Your task to perform on an android device: Go to Google Image 0: 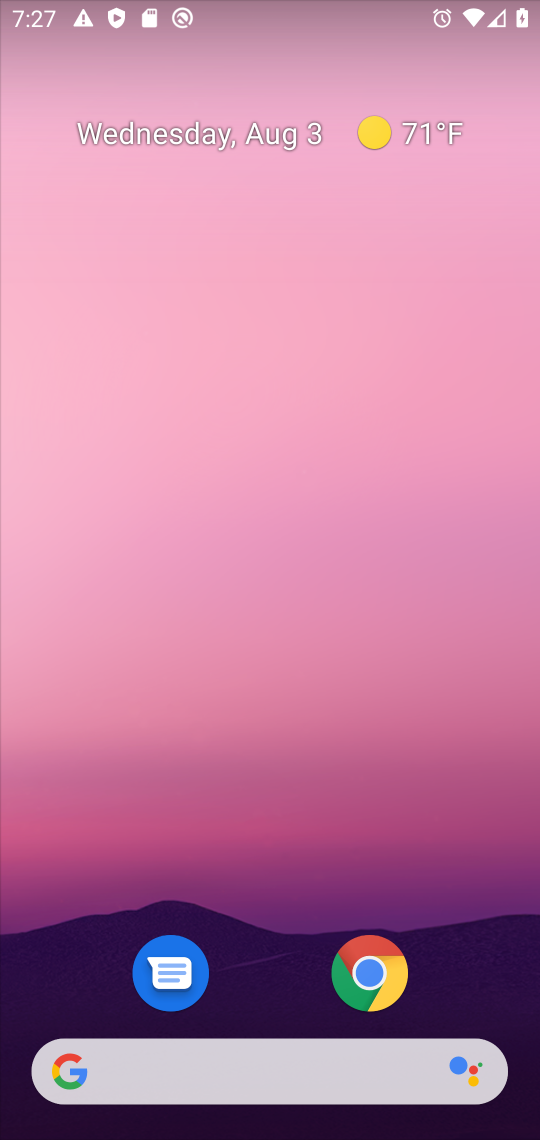
Step 0: drag from (244, 976) to (238, 378)
Your task to perform on an android device: Go to Google Image 1: 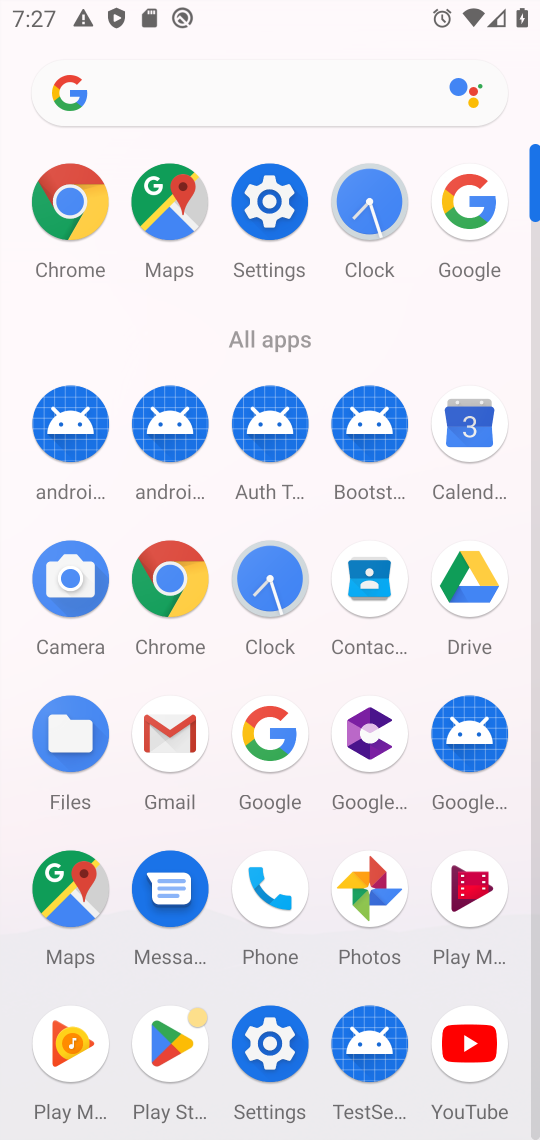
Step 1: click (260, 766)
Your task to perform on an android device: Go to Google Image 2: 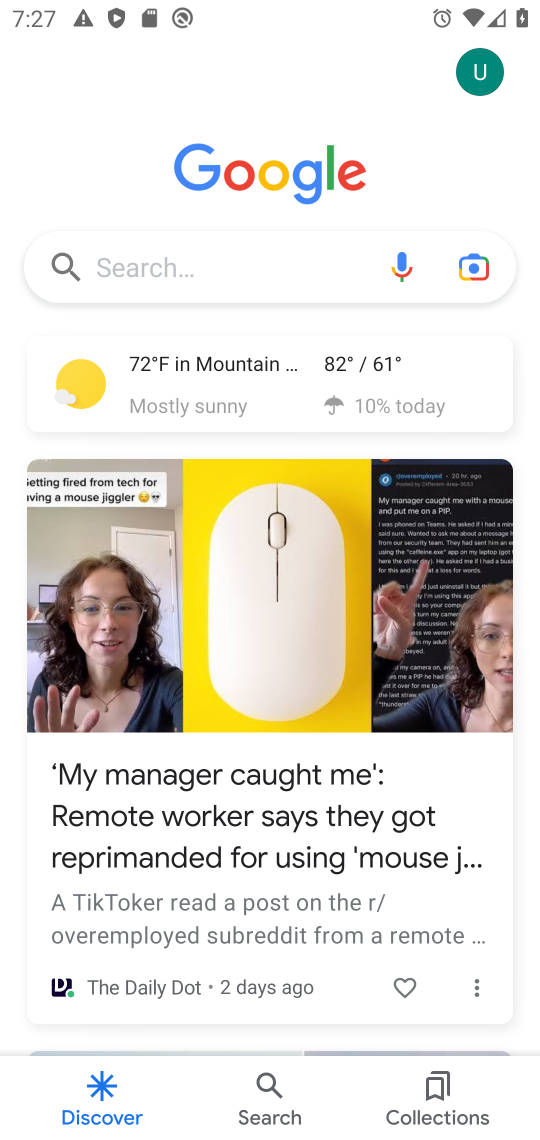
Step 2: task complete